Your task to perform on an android device: Search for vegetarian restaurants on Maps Image 0: 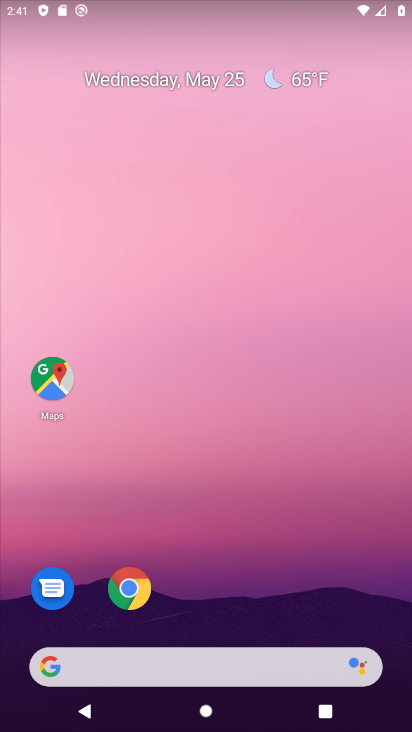
Step 0: click (51, 379)
Your task to perform on an android device: Search for vegetarian restaurants on Maps Image 1: 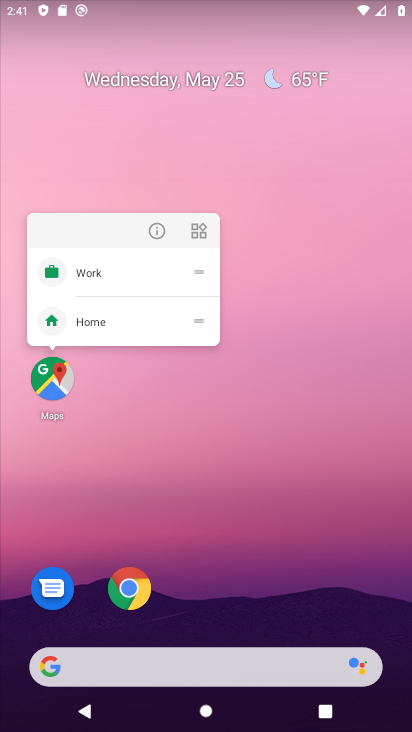
Step 1: click (52, 376)
Your task to perform on an android device: Search for vegetarian restaurants on Maps Image 2: 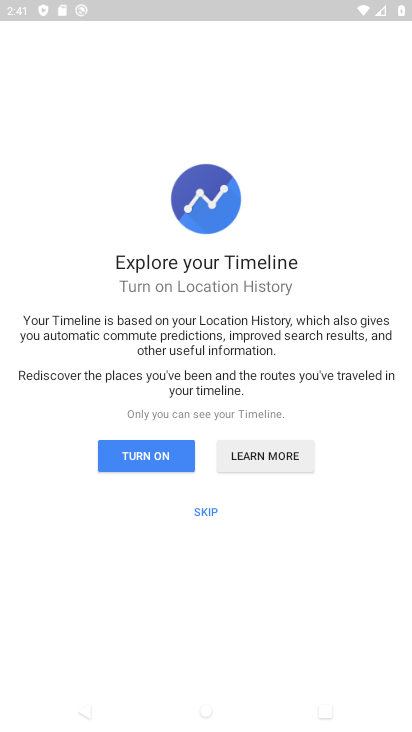
Step 2: click (143, 453)
Your task to perform on an android device: Search for vegetarian restaurants on Maps Image 3: 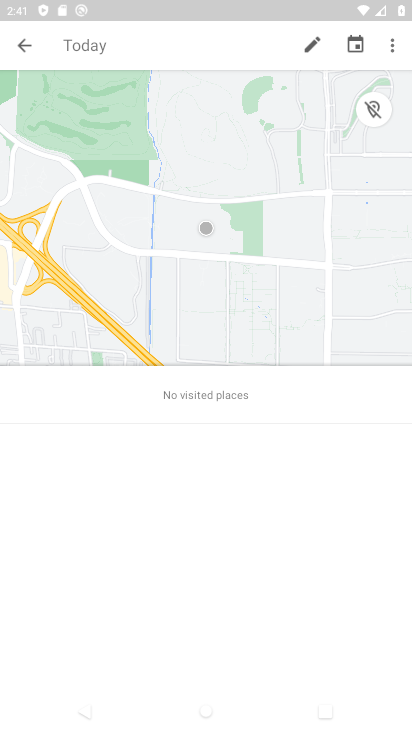
Step 3: click (24, 42)
Your task to perform on an android device: Search for vegetarian restaurants on Maps Image 4: 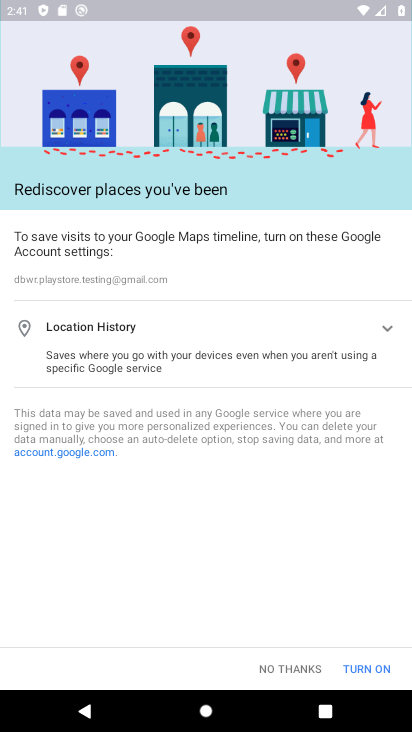
Step 4: click (382, 663)
Your task to perform on an android device: Search for vegetarian restaurants on Maps Image 5: 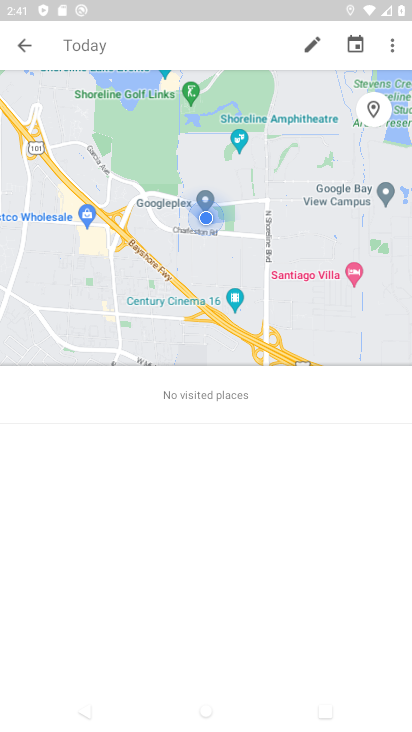
Step 5: click (16, 44)
Your task to perform on an android device: Search for vegetarian restaurants on Maps Image 6: 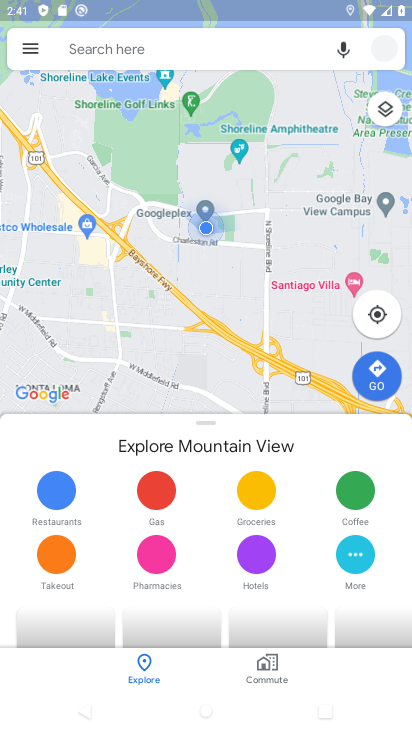
Step 6: click (69, 41)
Your task to perform on an android device: Search for vegetarian restaurants on Maps Image 7: 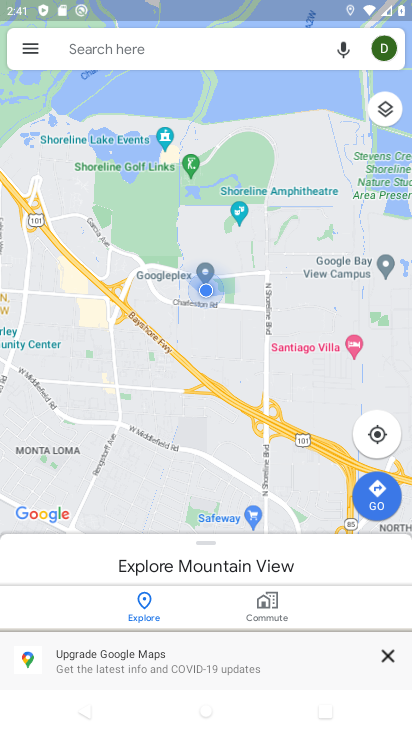
Step 7: click (90, 40)
Your task to perform on an android device: Search for vegetarian restaurants on Maps Image 8: 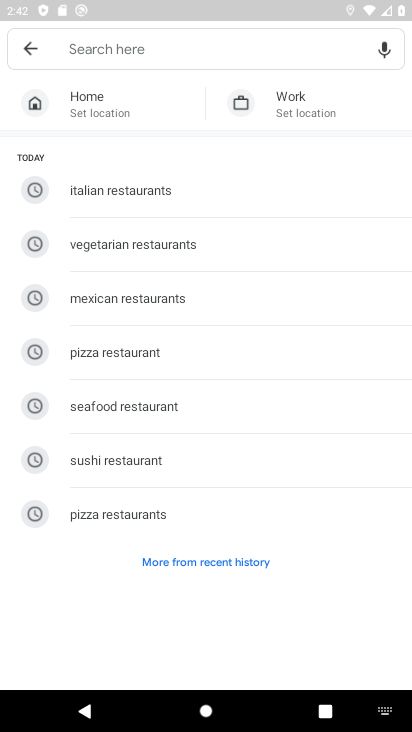
Step 8: type "vegetarian restaurants"
Your task to perform on an android device: Search for vegetarian restaurants on Maps Image 9: 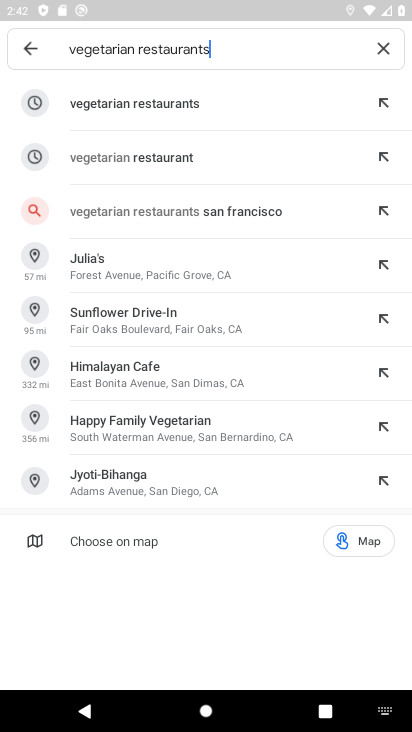
Step 9: click (199, 96)
Your task to perform on an android device: Search for vegetarian restaurants on Maps Image 10: 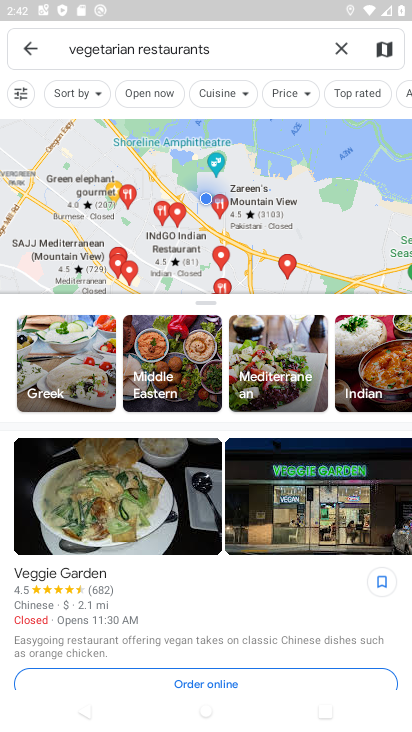
Step 10: task complete